Your task to perform on an android device: toggle notifications settings in the gmail app Image 0: 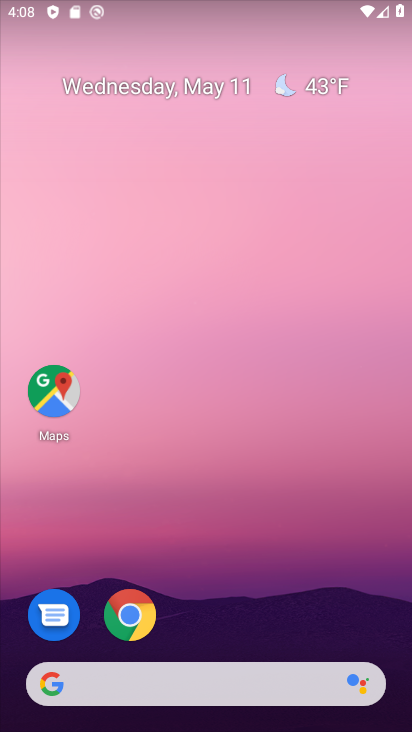
Step 0: drag from (199, 562) to (190, 18)
Your task to perform on an android device: toggle notifications settings in the gmail app Image 1: 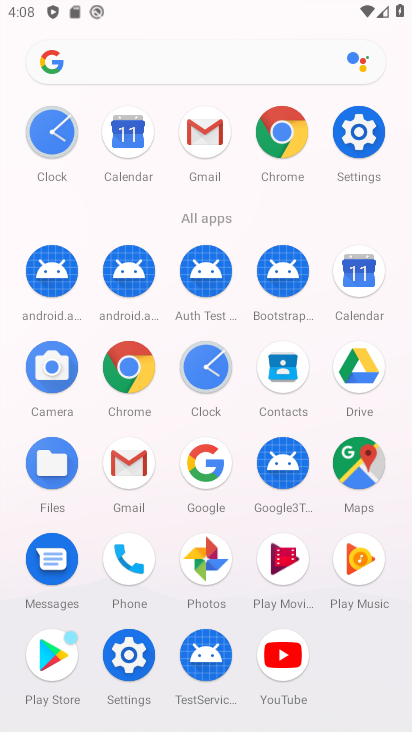
Step 1: click (127, 653)
Your task to perform on an android device: toggle notifications settings in the gmail app Image 2: 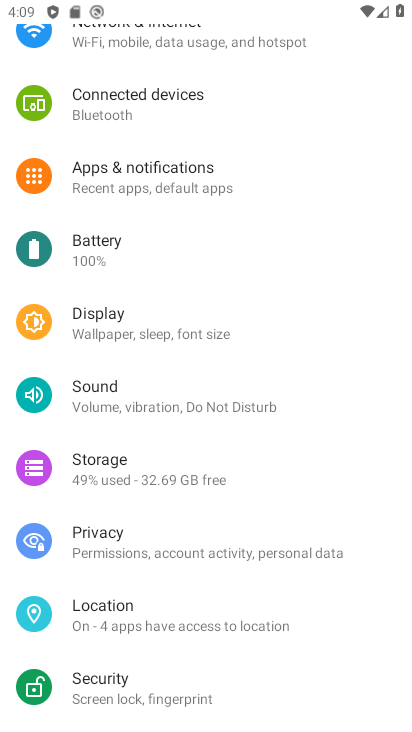
Step 2: click (184, 174)
Your task to perform on an android device: toggle notifications settings in the gmail app Image 3: 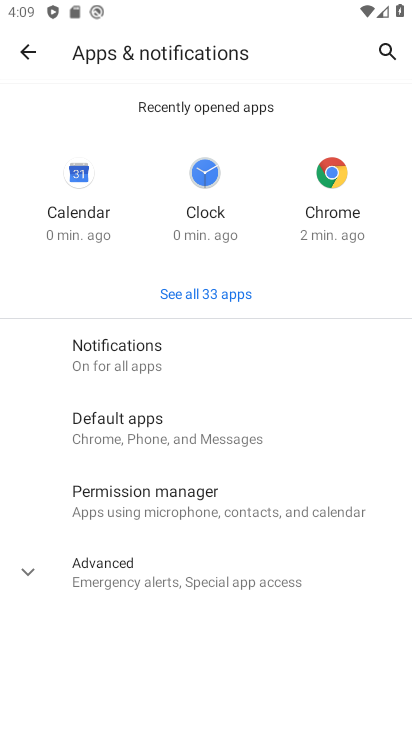
Step 3: click (144, 357)
Your task to perform on an android device: toggle notifications settings in the gmail app Image 4: 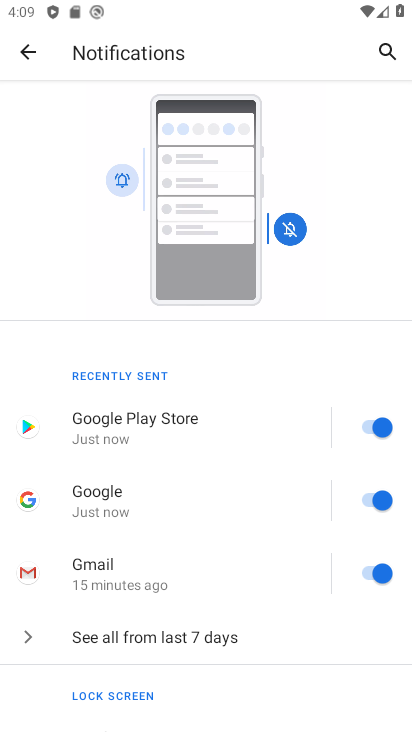
Step 4: drag from (238, 607) to (280, 158)
Your task to perform on an android device: toggle notifications settings in the gmail app Image 5: 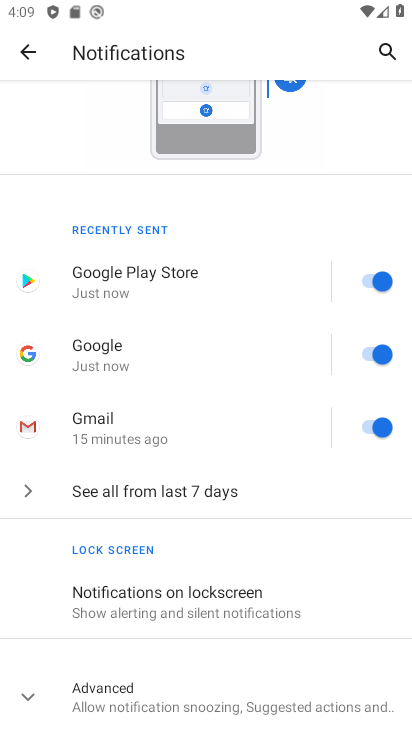
Step 5: drag from (185, 589) to (213, 277)
Your task to perform on an android device: toggle notifications settings in the gmail app Image 6: 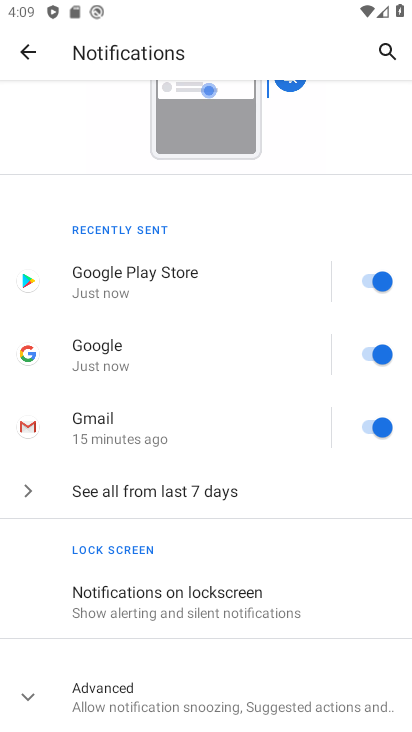
Step 6: drag from (222, 497) to (248, 132)
Your task to perform on an android device: toggle notifications settings in the gmail app Image 7: 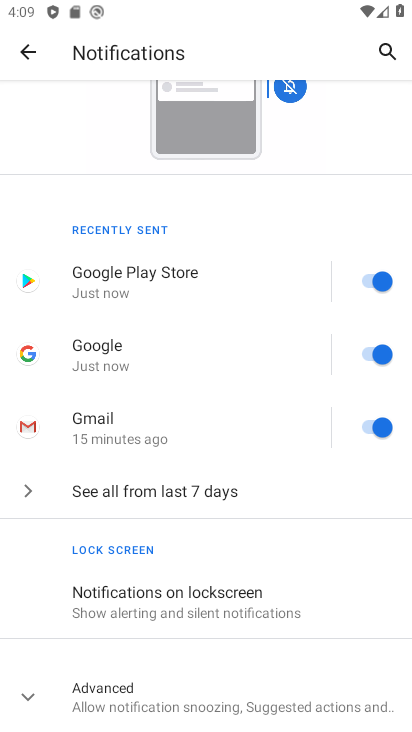
Step 7: drag from (242, 590) to (255, 169)
Your task to perform on an android device: toggle notifications settings in the gmail app Image 8: 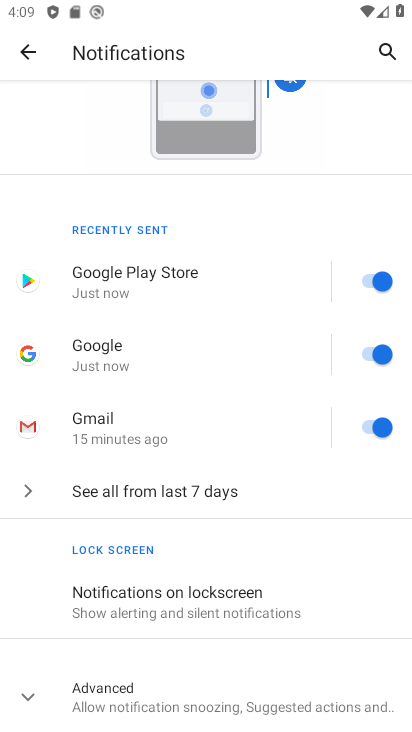
Step 8: click (138, 682)
Your task to perform on an android device: toggle notifications settings in the gmail app Image 9: 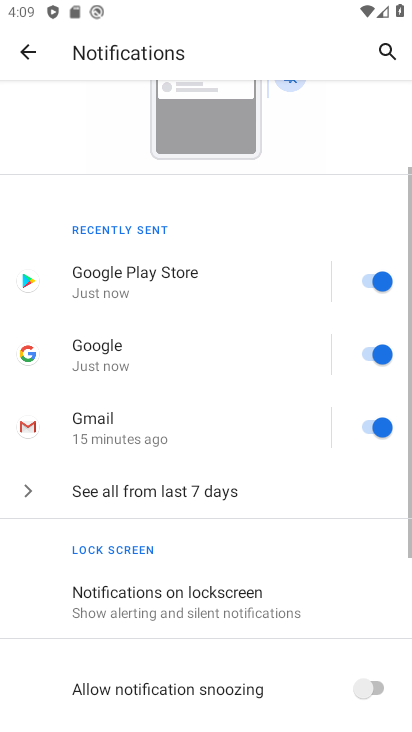
Step 9: drag from (222, 574) to (243, 187)
Your task to perform on an android device: toggle notifications settings in the gmail app Image 10: 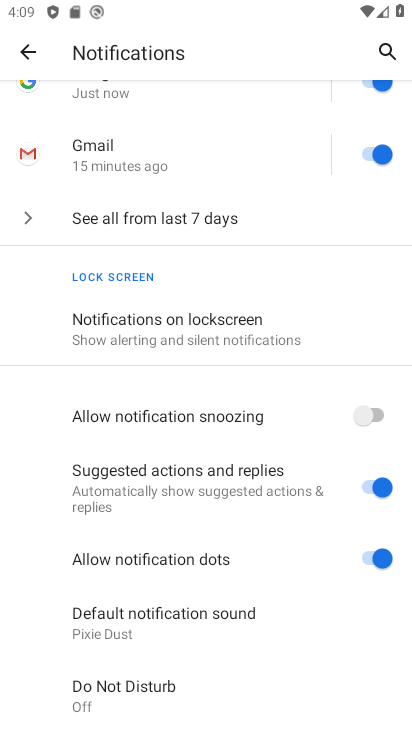
Step 10: click (365, 554)
Your task to perform on an android device: toggle notifications settings in the gmail app Image 11: 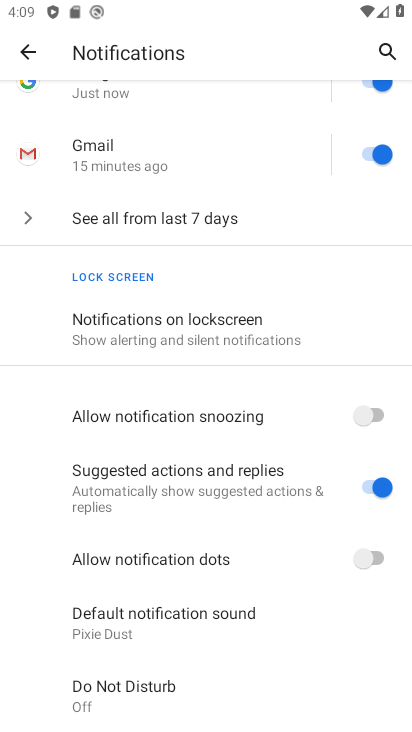
Step 11: task complete